Your task to perform on an android device: Open network settings Image 0: 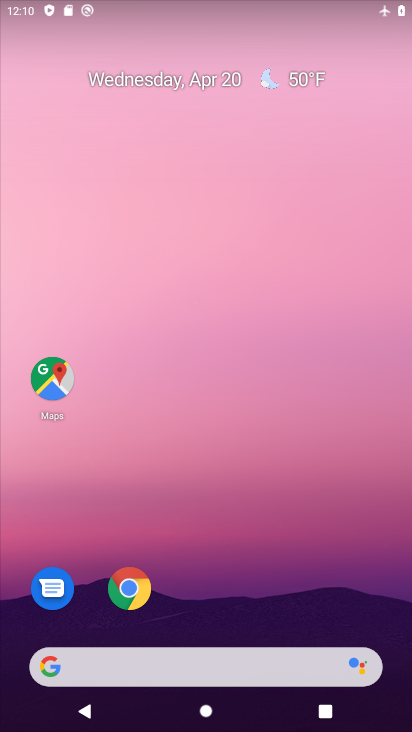
Step 0: drag from (230, 592) to (245, 127)
Your task to perform on an android device: Open network settings Image 1: 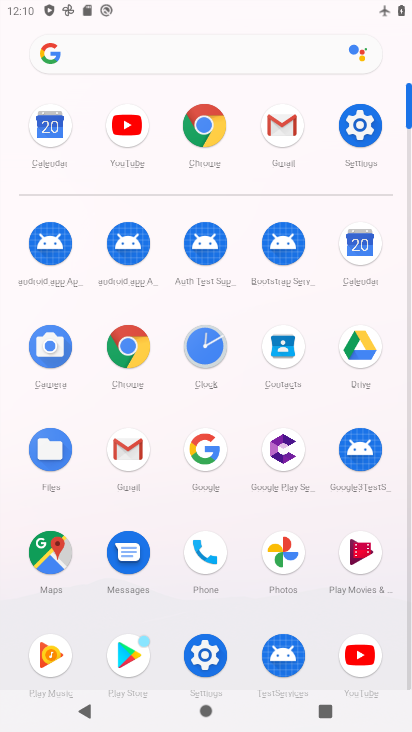
Step 1: click (357, 116)
Your task to perform on an android device: Open network settings Image 2: 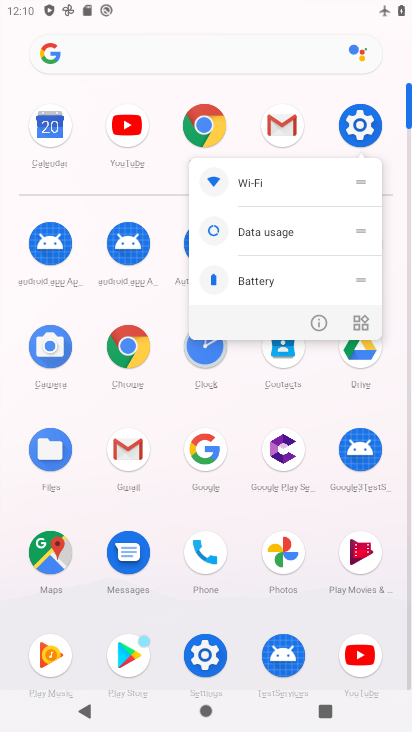
Step 2: click (354, 117)
Your task to perform on an android device: Open network settings Image 3: 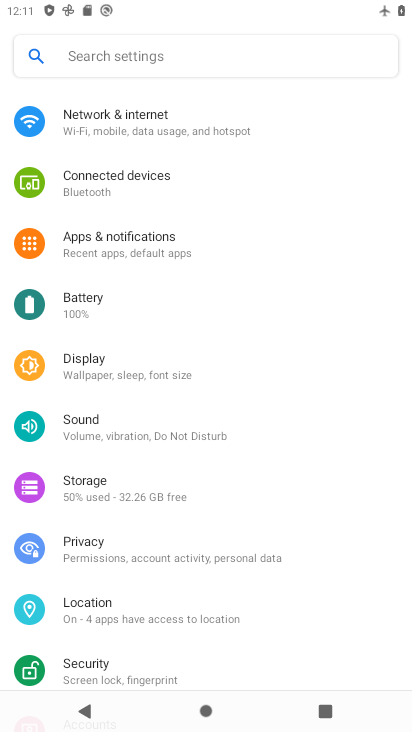
Step 3: click (180, 109)
Your task to perform on an android device: Open network settings Image 4: 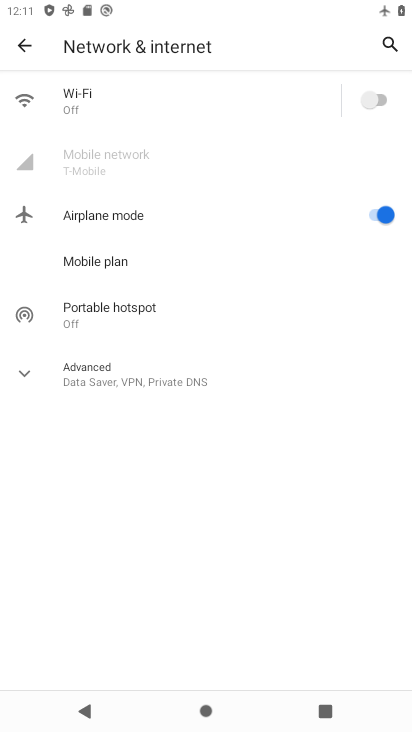
Step 4: click (72, 370)
Your task to perform on an android device: Open network settings Image 5: 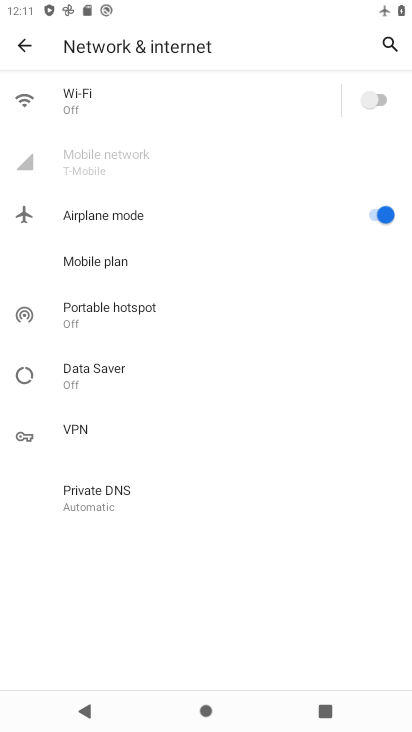
Step 5: task complete